Your task to perform on an android device: What's the weather going to be tomorrow? Image 0: 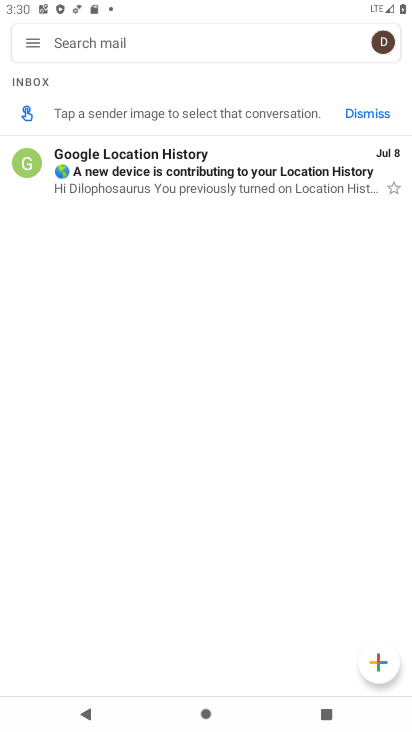
Step 0: press home button
Your task to perform on an android device: What's the weather going to be tomorrow? Image 1: 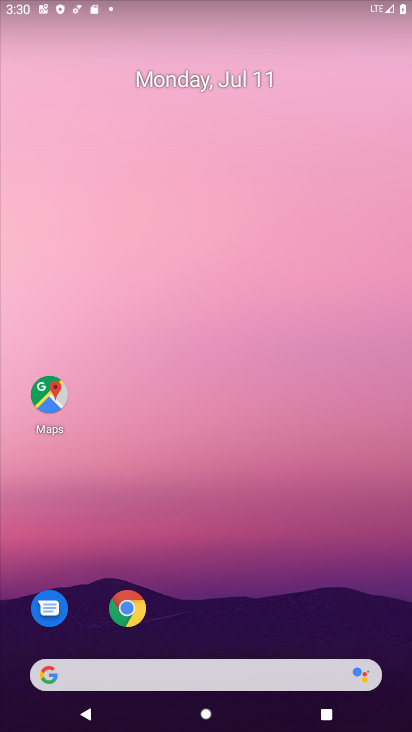
Step 1: click (123, 669)
Your task to perform on an android device: What's the weather going to be tomorrow? Image 2: 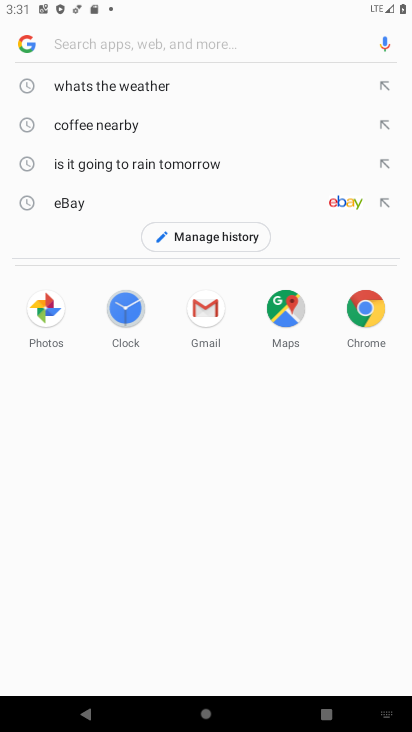
Step 2: type "weather tomorrow"
Your task to perform on an android device: What's the weather going to be tomorrow? Image 3: 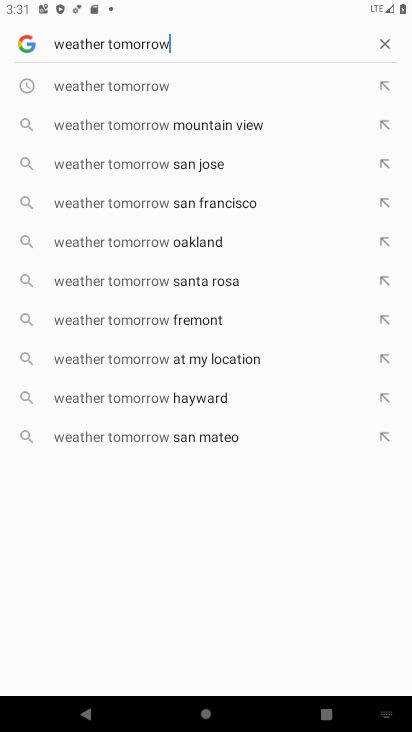
Step 3: click (272, 82)
Your task to perform on an android device: What's the weather going to be tomorrow? Image 4: 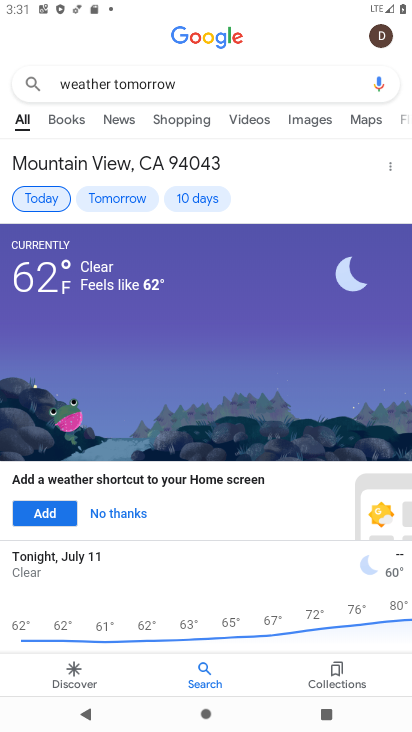
Step 4: click (97, 200)
Your task to perform on an android device: What's the weather going to be tomorrow? Image 5: 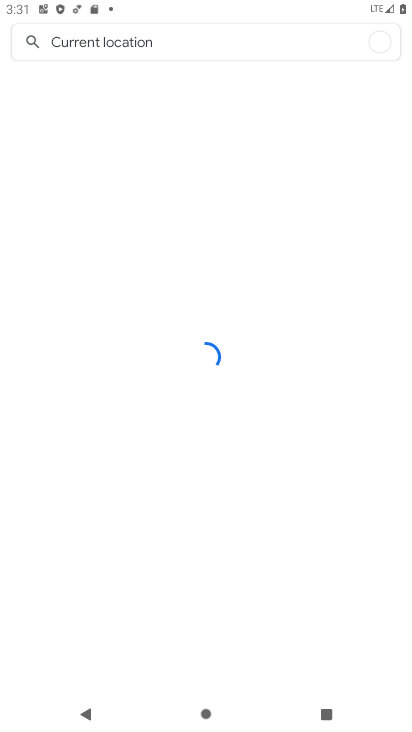
Step 5: click (97, 200)
Your task to perform on an android device: What's the weather going to be tomorrow? Image 6: 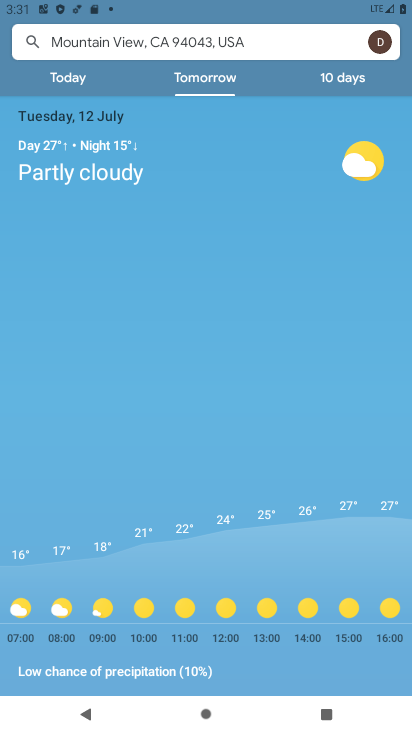
Step 6: task complete